Your task to perform on an android device: Open CNN.com Image 0: 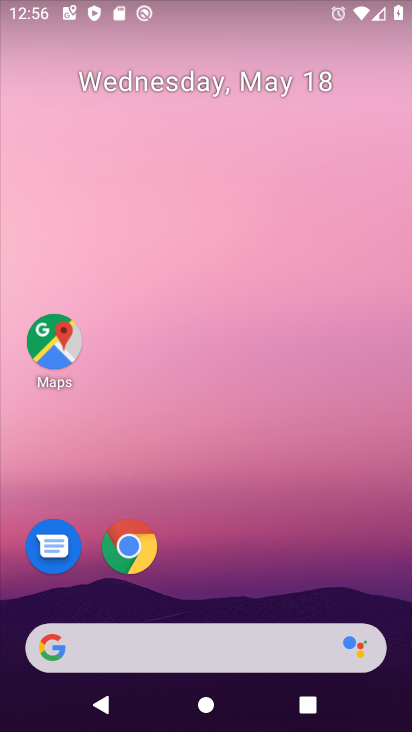
Step 0: drag from (197, 677) to (244, 99)
Your task to perform on an android device: Open CNN.com Image 1: 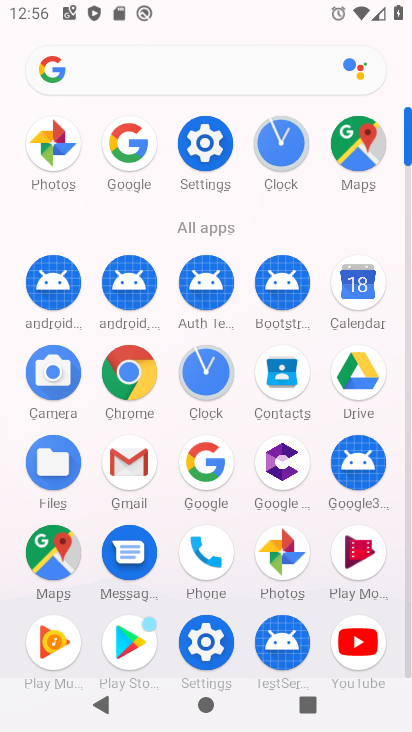
Step 1: click (124, 380)
Your task to perform on an android device: Open CNN.com Image 2: 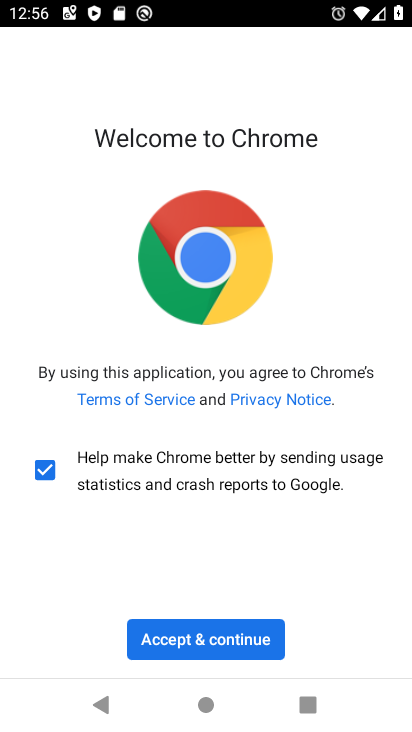
Step 2: click (192, 639)
Your task to perform on an android device: Open CNN.com Image 3: 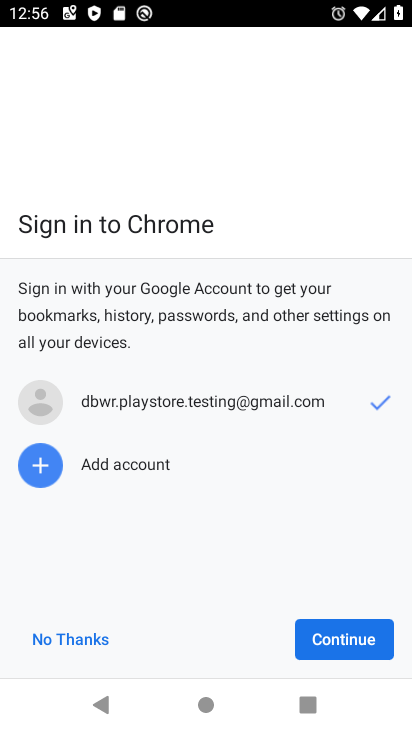
Step 3: click (385, 638)
Your task to perform on an android device: Open CNN.com Image 4: 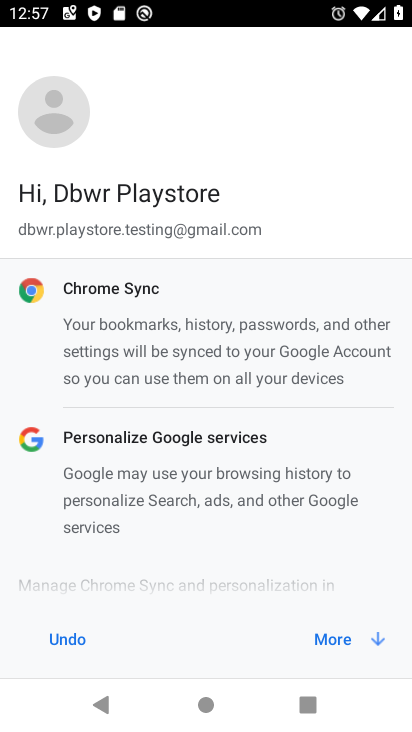
Step 4: click (366, 648)
Your task to perform on an android device: Open CNN.com Image 5: 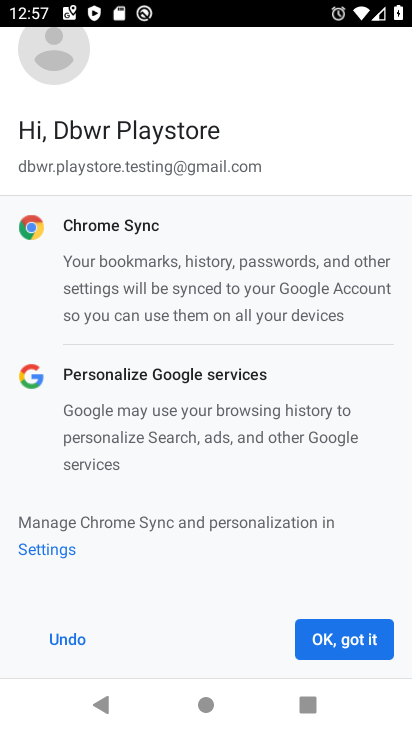
Step 5: click (365, 645)
Your task to perform on an android device: Open CNN.com Image 6: 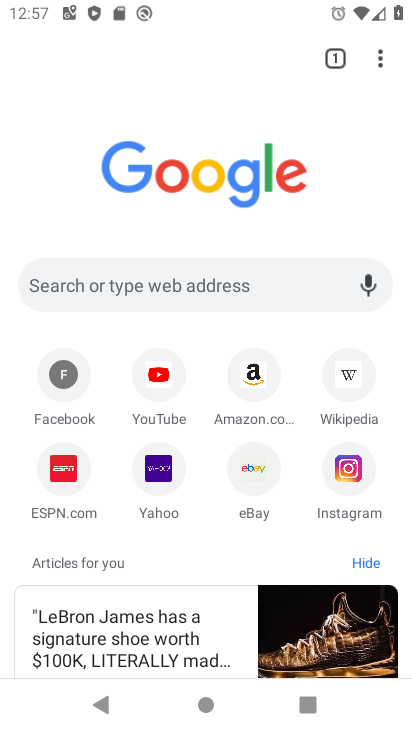
Step 6: click (194, 289)
Your task to perform on an android device: Open CNN.com Image 7: 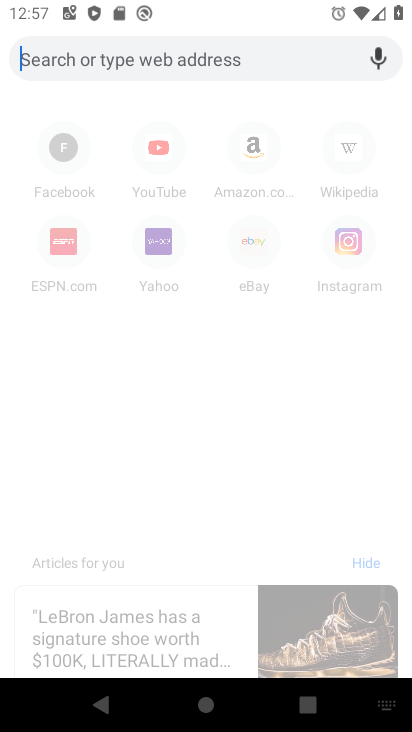
Step 7: type "cnn"
Your task to perform on an android device: Open CNN.com Image 8: 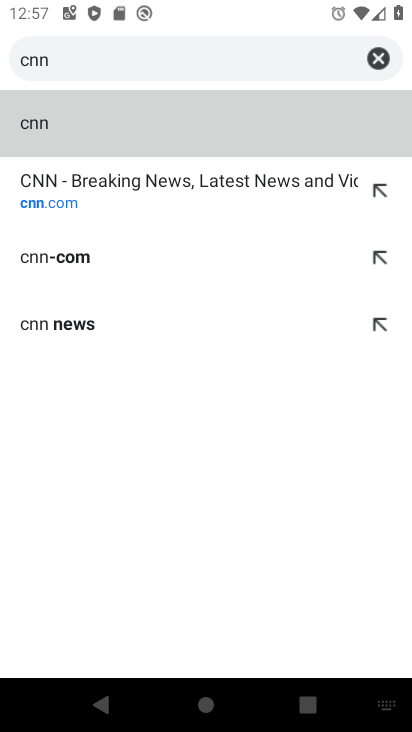
Step 8: click (198, 207)
Your task to perform on an android device: Open CNN.com Image 9: 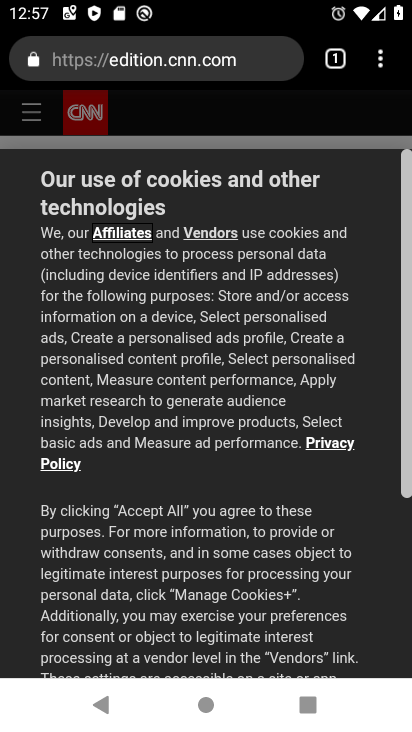
Step 9: task complete